Your task to perform on an android device: clear history in the chrome app Image 0: 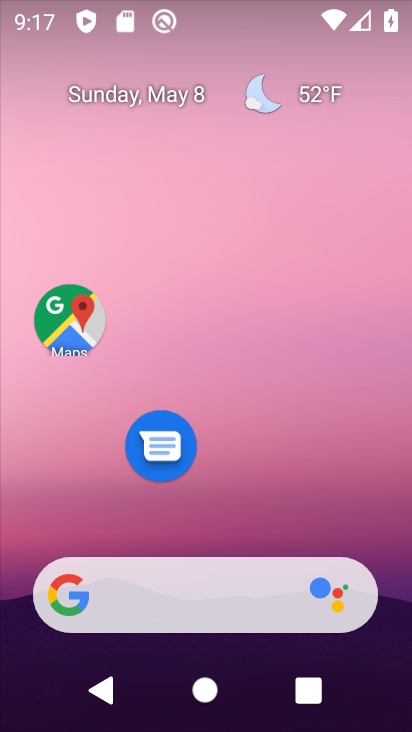
Step 0: drag from (311, 507) to (320, 72)
Your task to perform on an android device: clear history in the chrome app Image 1: 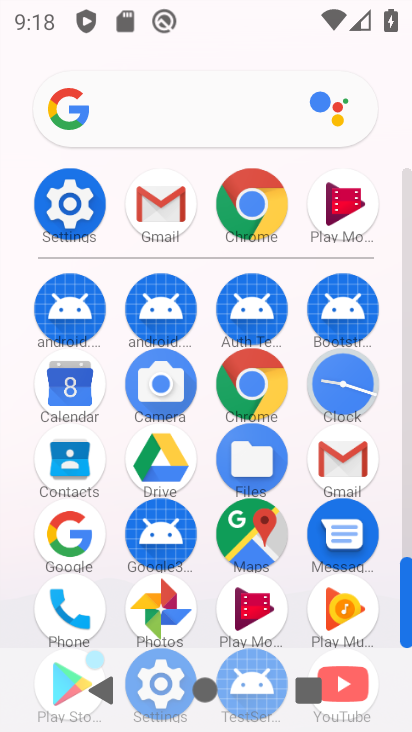
Step 1: click (240, 379)
Your task to perform on an android device: clear history in the chrome app Image 2: 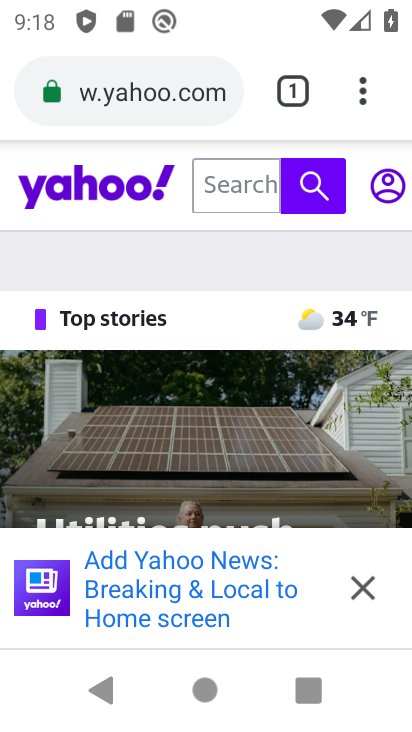
Step 2: click (348, 91)
Your task to perform on an android device: clear history in the chrome app Image 3: 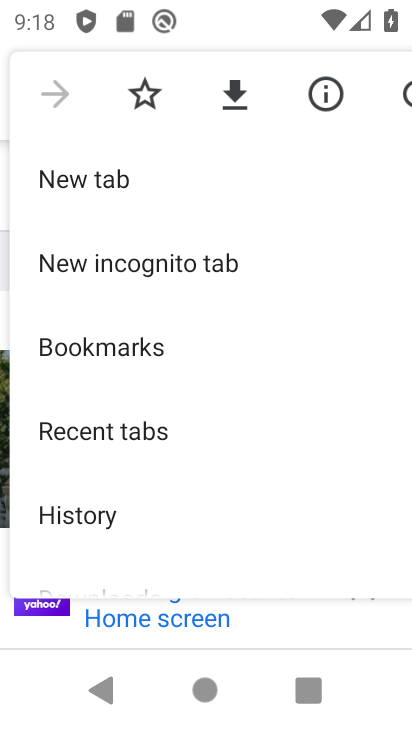
Step 3: drag from (200, 566) to (206, 216)
Your task to perform on an android device: clear history in the chrome app Image 4: 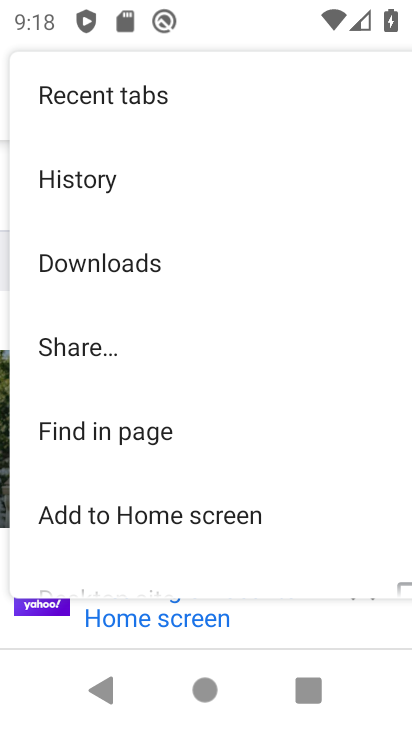
Step 4: drag from (220, 512) to (207, 199)
Your task to perform on an android device: clear history in the chrome app Image 5: 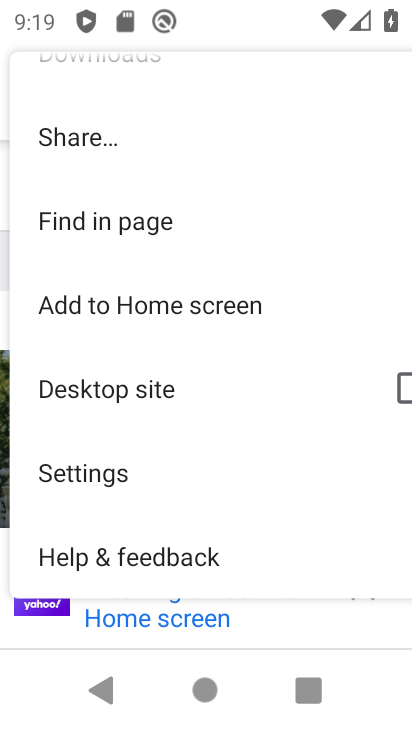
Step 5: drag from (146, 149) to (141, 681)
Your task to perform on an android device: clear history in the chrome app Image 6: 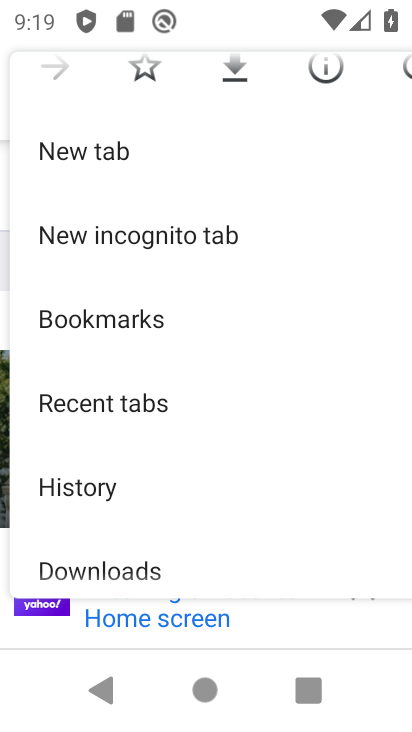
Step 6: click (54, 449)
Your task to perform on an android device: clear history in the chrome app Image 7: 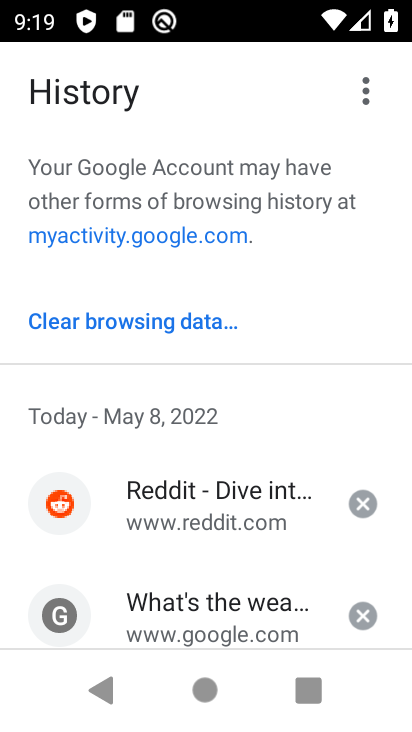
Step 7: task complete